Your task to perform on an android device: Search for the best rated desk chair on Article.com Image 0: 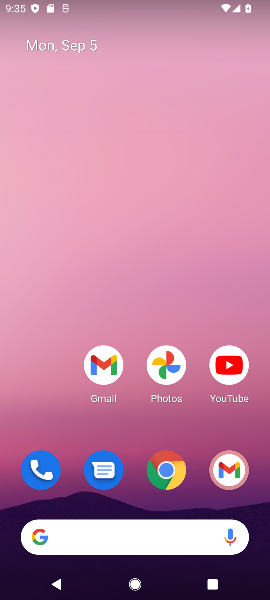
Step 0: click (122, 527)
Your task to perform on an android device: Search for the best rated desk chair on Article.com Image 1: 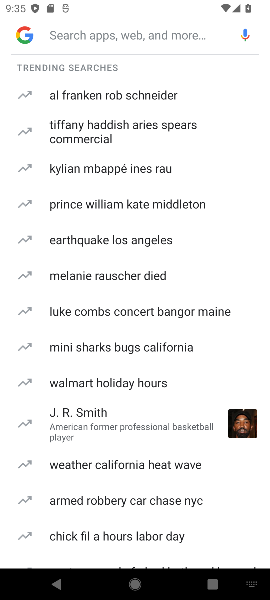
Step 1: type "article.com"
Your task to perform on an android device: Search for the best rated desk chair on Article.com Image 2: 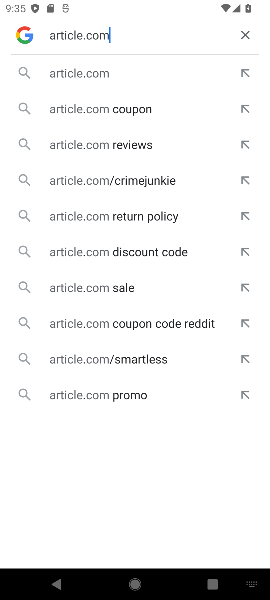
Step 2: click (78, 74)
Your task to perform on an android device: Search for the best rated desk chair on Article.com Image 3: 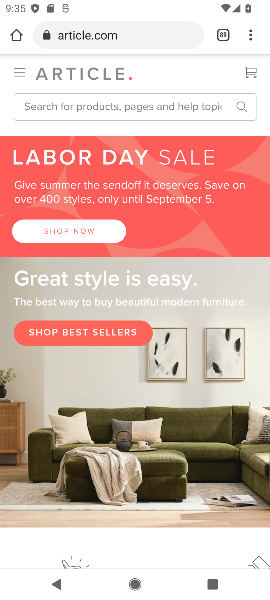
Step 3: click (123, 99)
Your task to perform on an android device: Search for the best rated desk chair on Article.com Image 4: 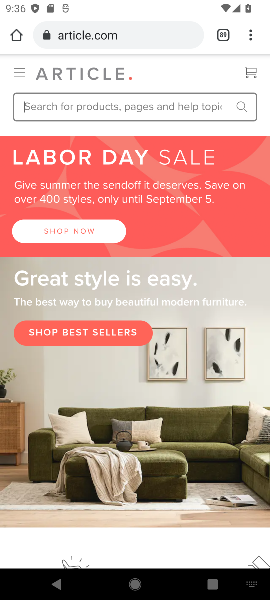
Step 4: type "best rated desk chair"
Your task to perform on an android device: Search for the best rated desk chair on Article.com Image 5: 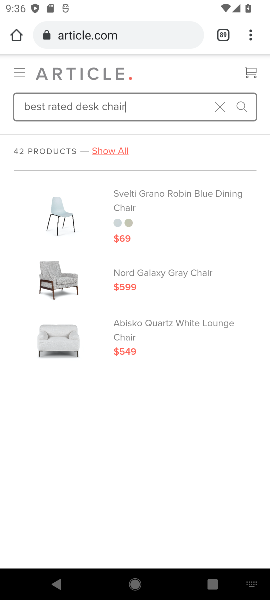
Step 5: task complete